Your task to perform on an android device: change the clock display to analog Image 0: 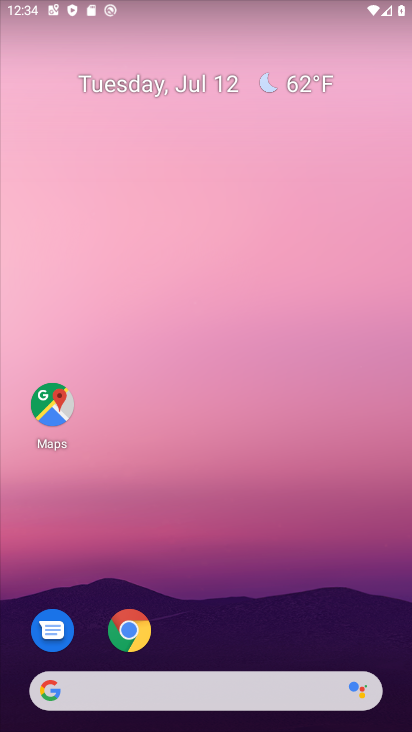
Step 0: drag from (238, 580) to (174, 185)
Your task to perform on an android device: change the clock display to analog Image 1: 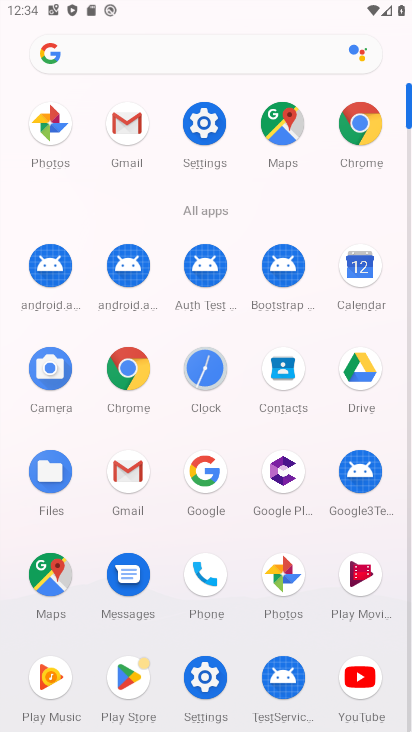
Step 1: click (208, 371)
Your task to perform on an android device: change the clock display to analog Image 2: 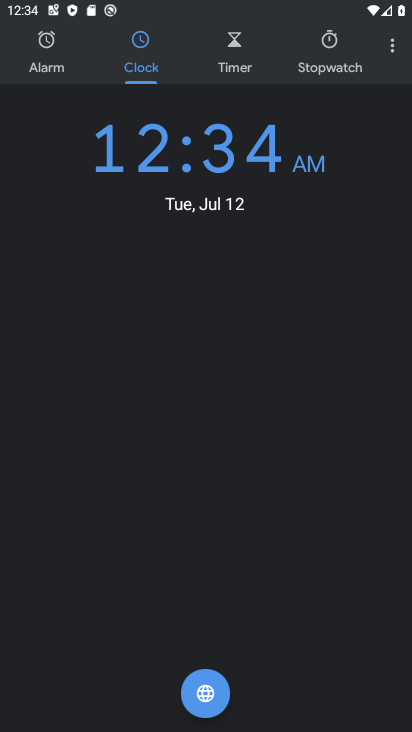
Step 2: click (392, 44)
Your task to perform on an android device: change the clock display to analog Image 3: 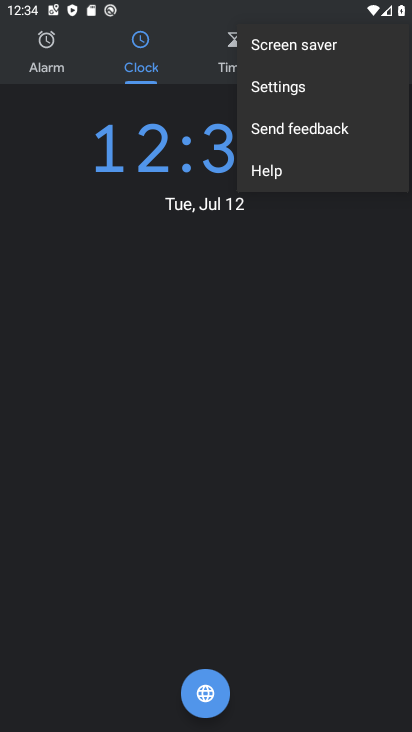
Step 3: click (294, 80)
Your task to perform on an android device: change the clock display to analog Image 4: 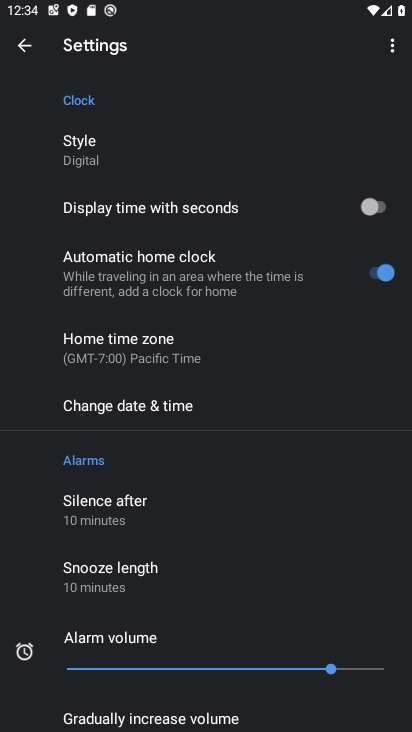
Step 4: click (81, 148)
Your task to perform on an android device: change the clock display to analog Image 5: 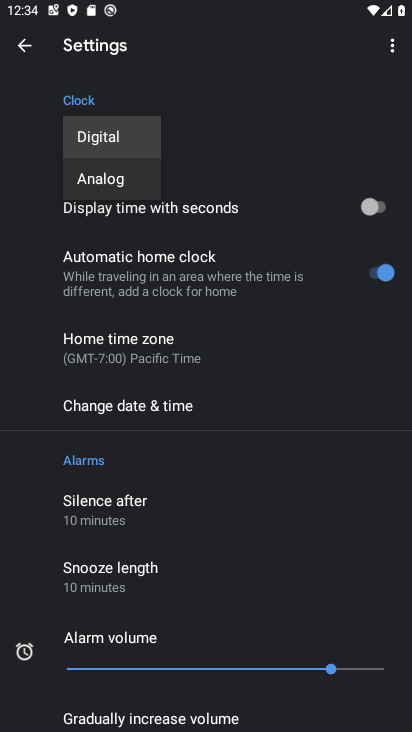
Step 5: click (101, 175)
Your task to perform on an android device: change the clock display to analog Image 6: 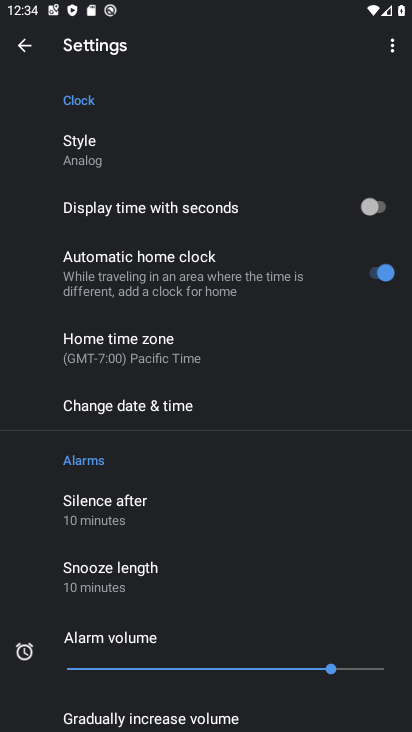
Step 6: task complete